Your task to perform on an android device: change timer sound Image 0: 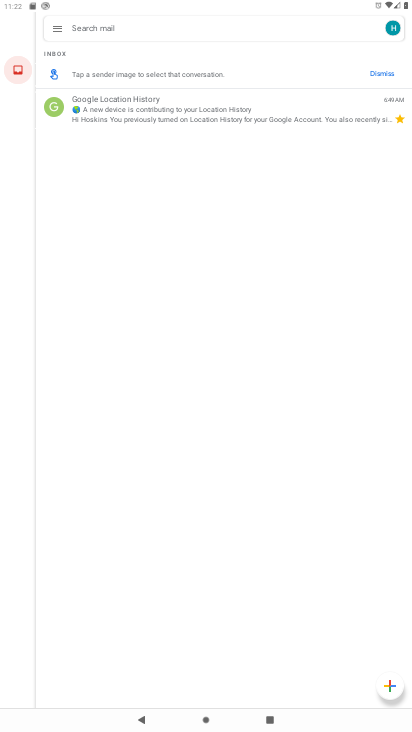
Step 0: press home button
Your task to perform on an android device: change timer sound Image 1: 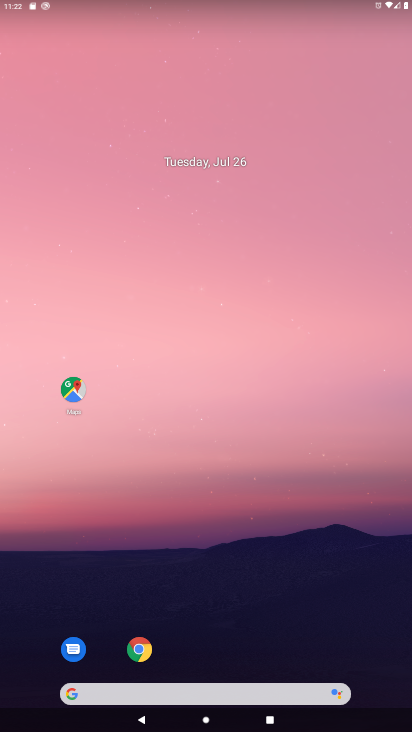
Step 1: drag from (203, 587) to (182, 21)
Your task to perform on an android device: change timer sound Image 2: 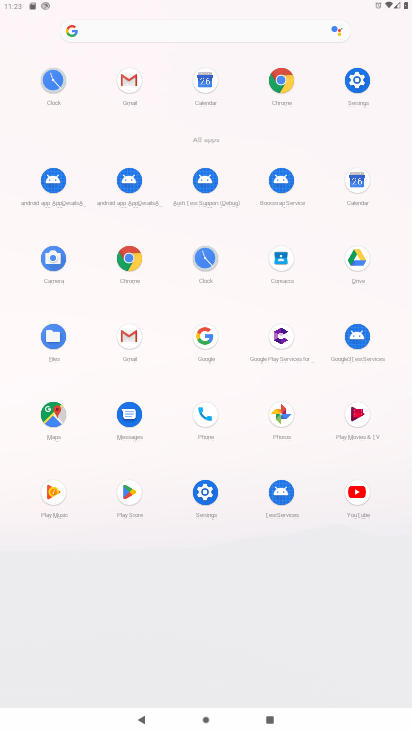
Step 2: click (213, 262)
Your task to perform on an android device: change timer sound Image 3: 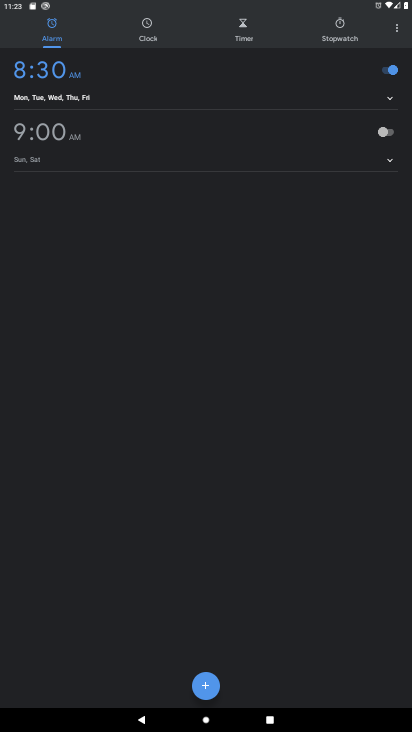
Step 3: click (237, 43)
Your task to perform on an android device: change timer sound Image 4: 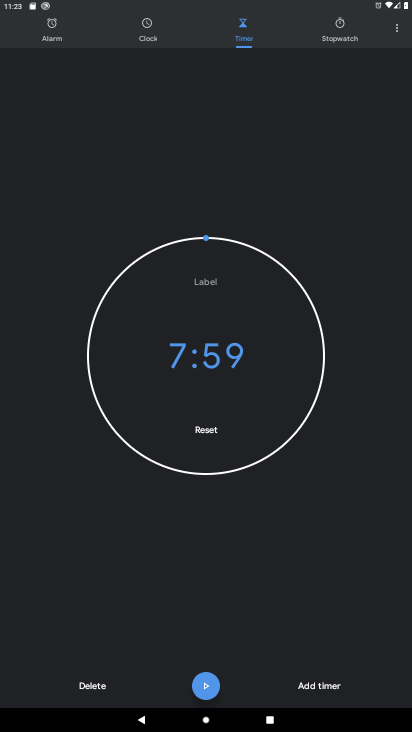
Step 4: click (397, 30)
Your task to perform on an android device: change timer sound Image 5: 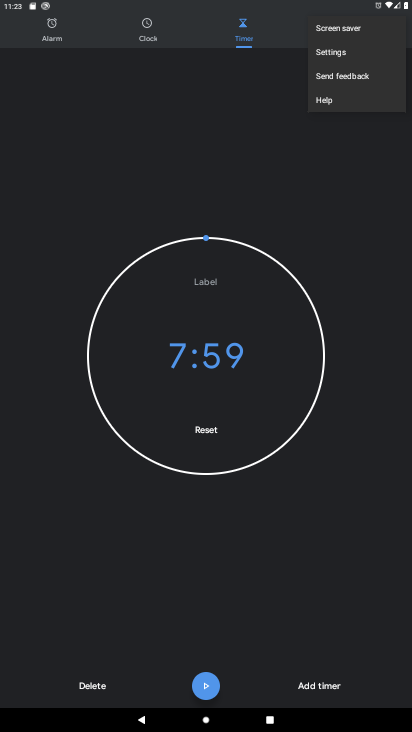
Step 5: click (338, 54)
Your task to perform on an android device: change timer sound Image 6: 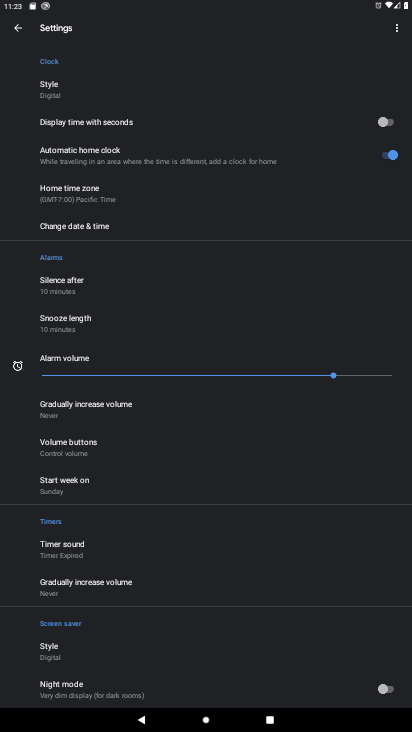
Step 6: click (78, 552)
Your task to perform on an android device: change timer sound Image 7: 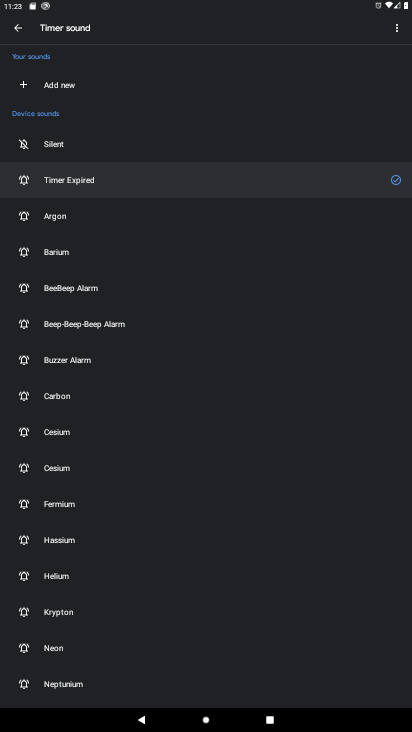
Step 7: click (72, 208)
Your task to perform on an android device: change timer sound Image 8: 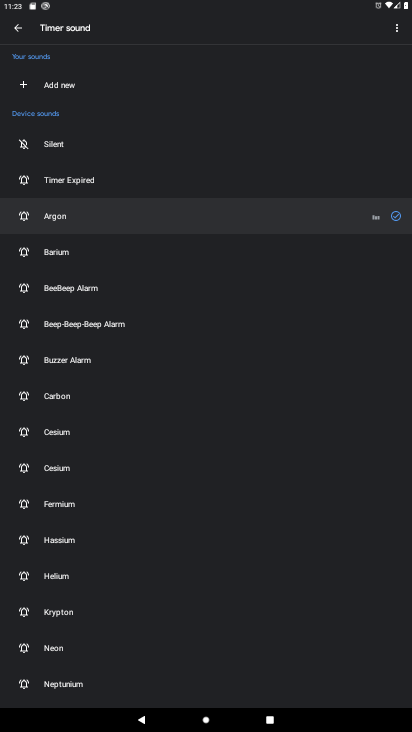
Step 8: task complete